Your task to perform on an android device: What is the capital of Italy? Image 0: 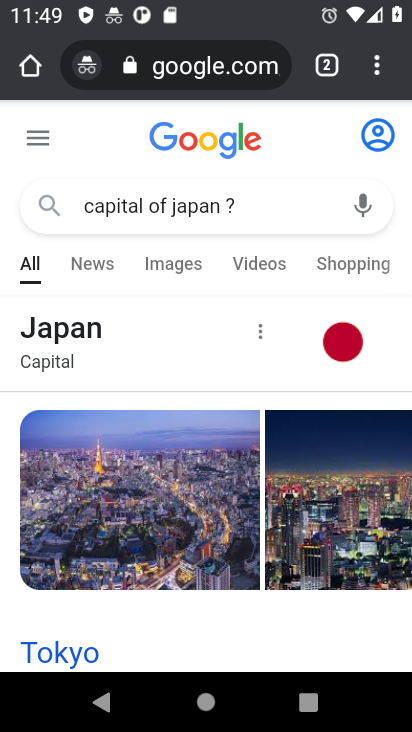
Step 0: click (191, 206)
Your task to perform on an android device: What is the capital of Italy? Image 1: 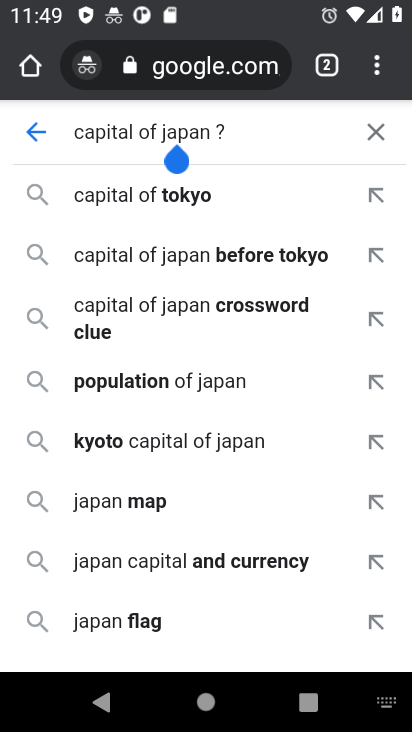
Step 1: click (177, 132)
Your task to perform on an android device: What is the capital of Italy? Image 2: 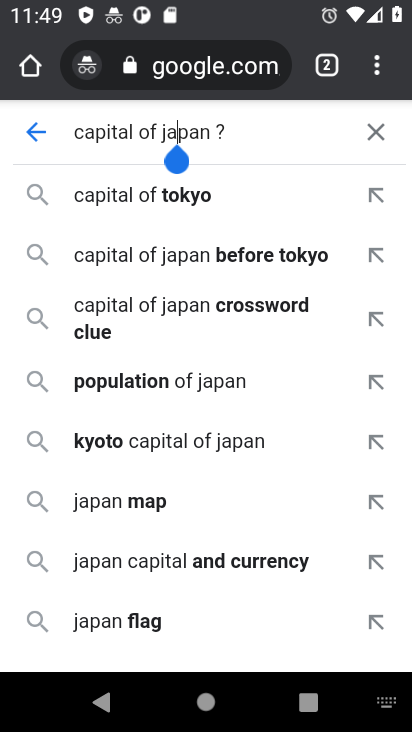
Step 2: click (177, 132)
Your task to perform on an android device: What is the capital of Italy? Image 3: 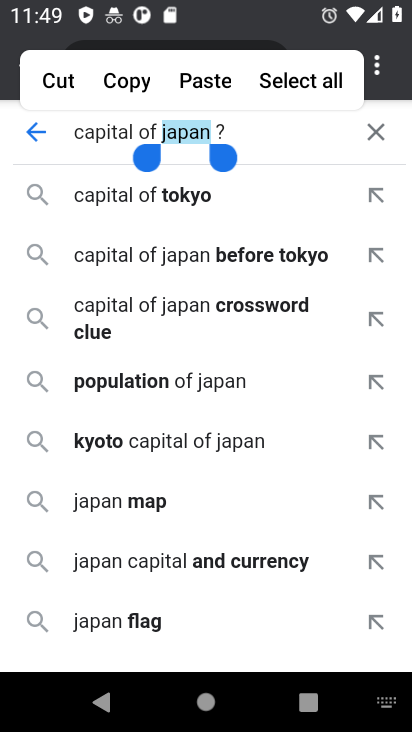
Step 3: type "italy"
Your task to perform on an android device: What is the capital of Italy? Image 4: 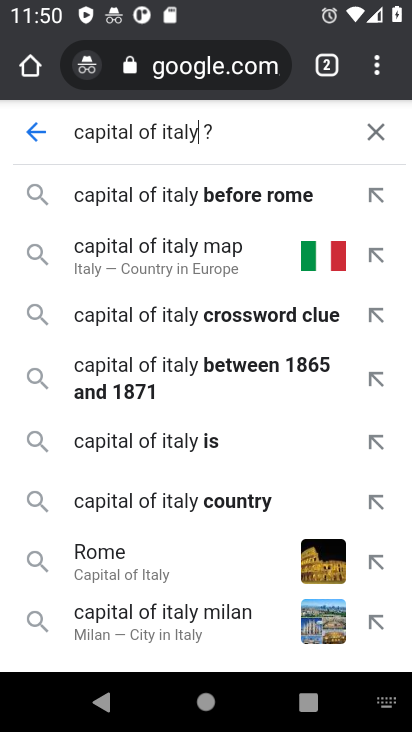
Step 4: click (200, 435)
Your task to perform on an android device: What is the capital of Italy? Image 5: 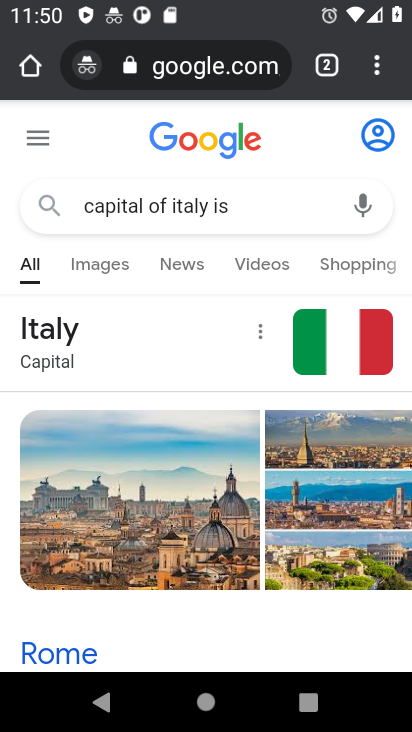
Step 5: task complete